Your task to perform on an android device: Open eBay Image 0: 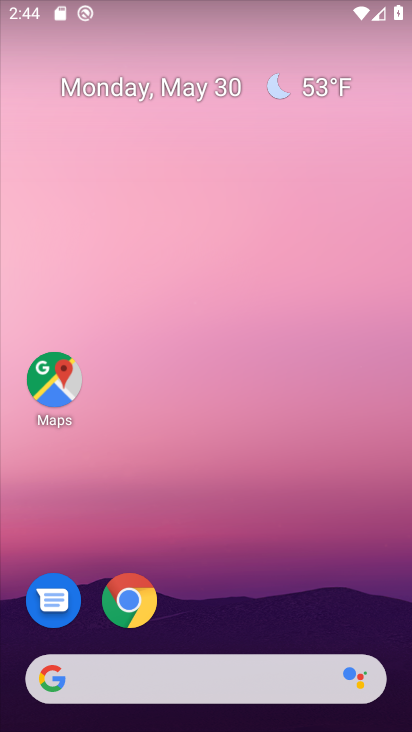
Step 0: drag from (295, 589) to (299, 144)
Your task to perform on an android device: Open eBay Image 1: 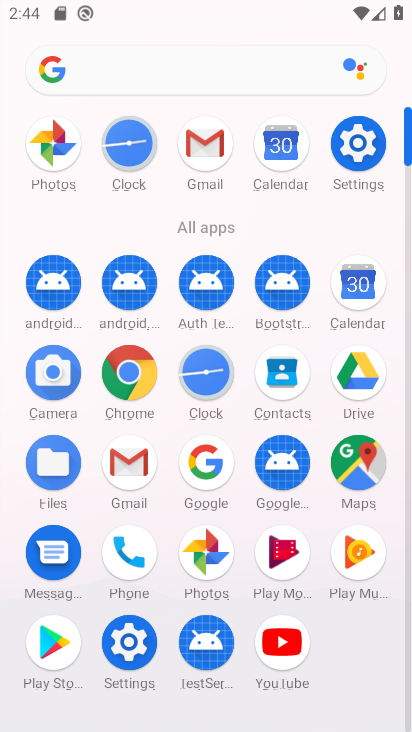
Step 1: click (129, 370)
Your task to perform on an android device: Open eBay Image 2: 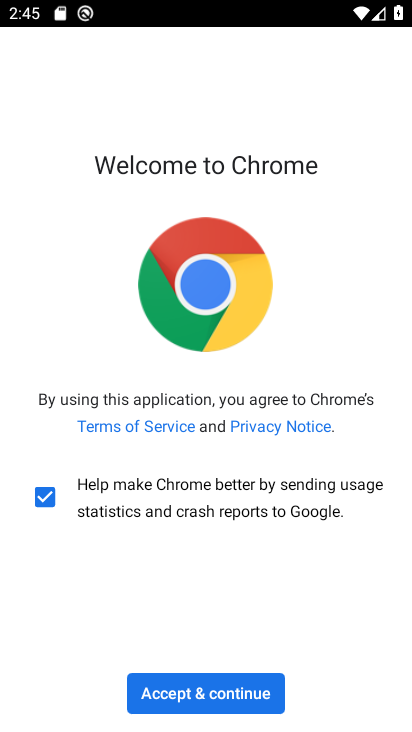
Step 2: click (172, 695)
Your task to perform on an android device: Open eBay Image 3: 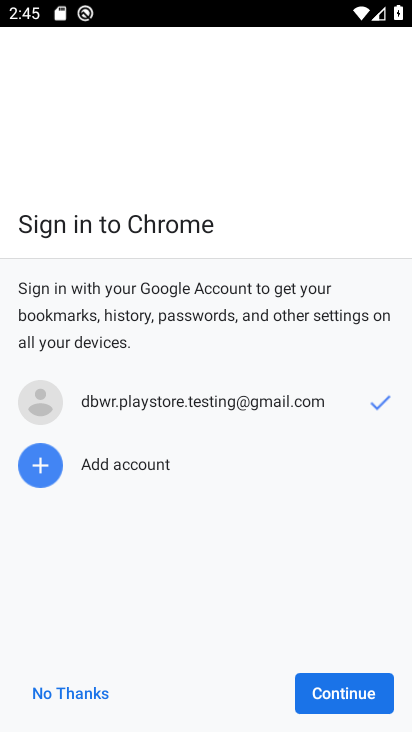
Step 3: click (14, 696)
Your task to perform on an android device: Open eBay Image 4: 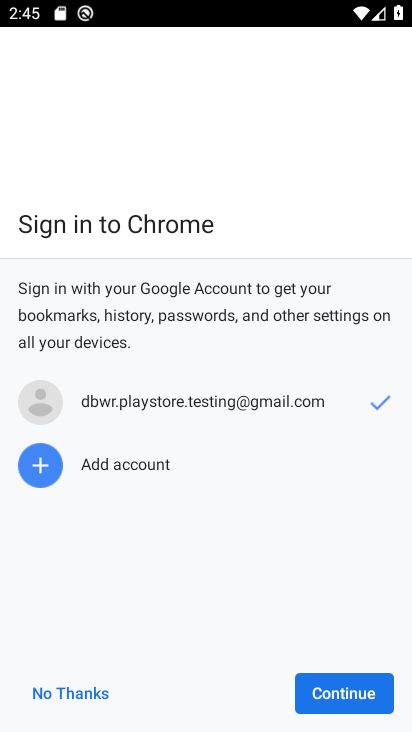
Step 4: click (43, 682)
Your task to perform on an android device: Open eBay Image 5: 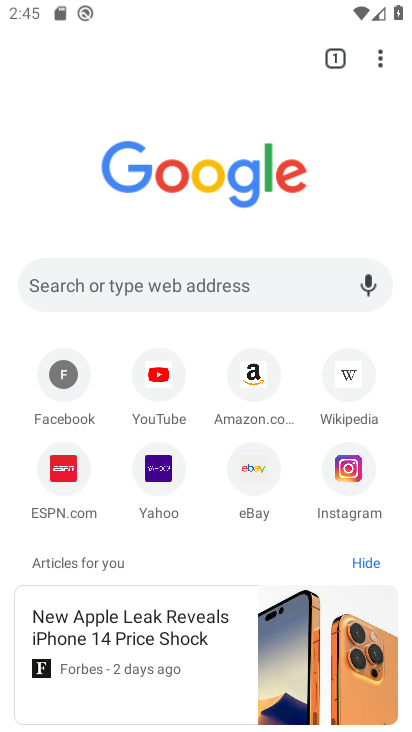
Step 5: click (245, 505)
Your task to perform on an android device: Open eBay Image 6: 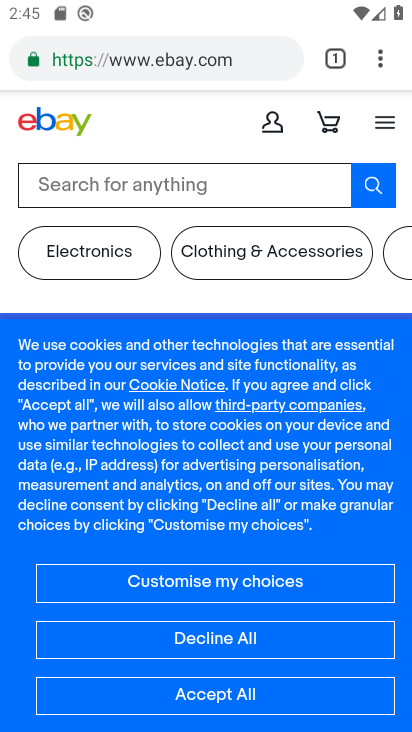
Step 6: task complete